Your task to perform on an android device: Open network settings Image 0: 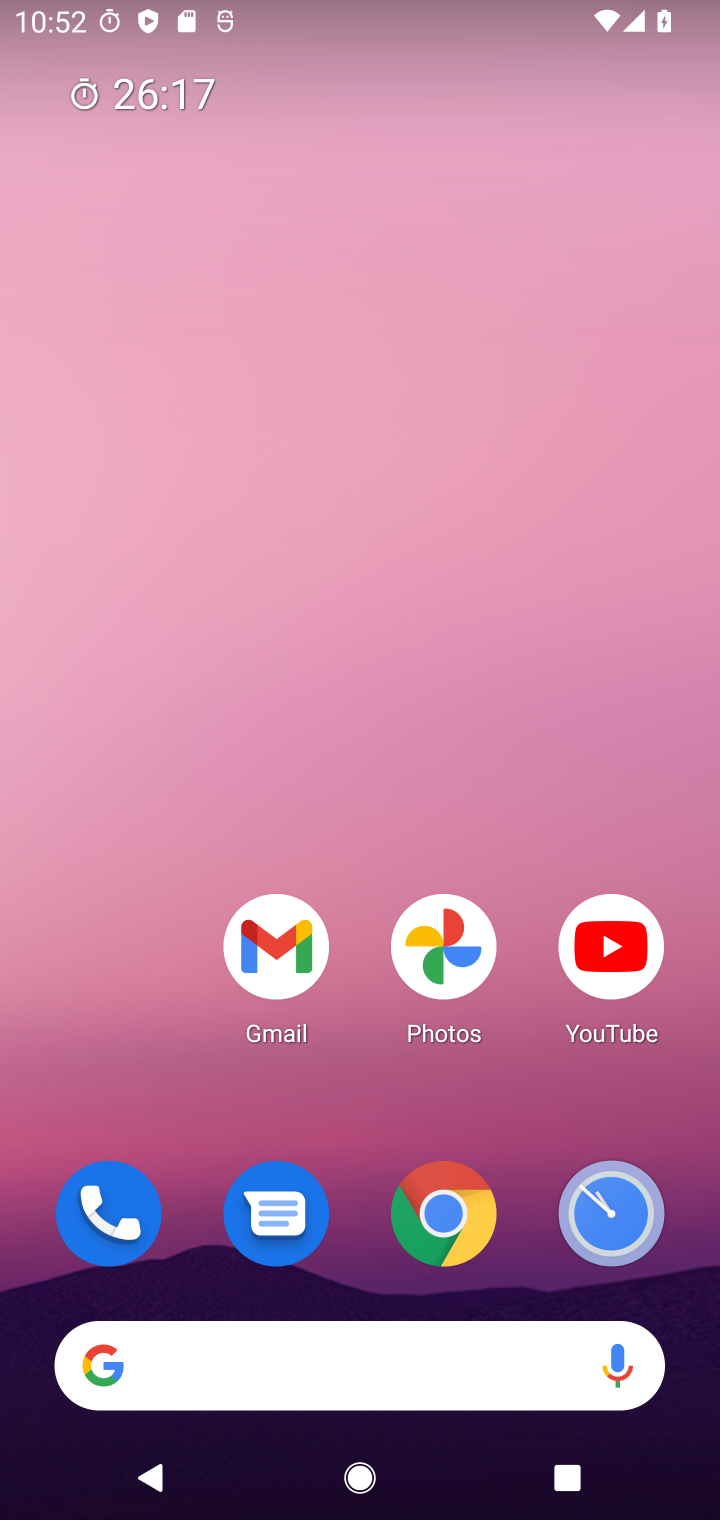
Step 0: drag from (381, 1129) to (487, 302)
Your task to perform on an android device: Open network settings Image 1: 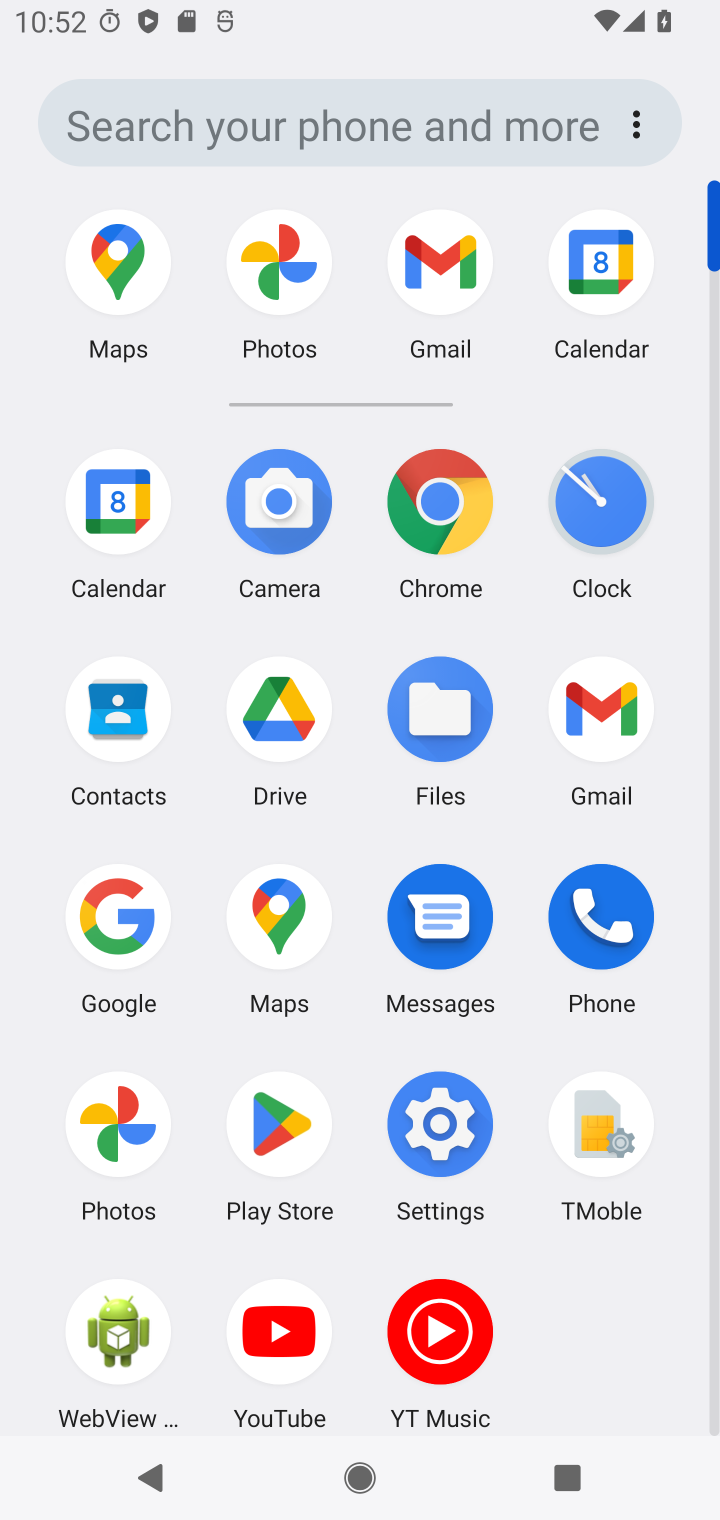
Step 1: click (433, 1151)
Your task to perform on an android device: Open network settings Image 2: 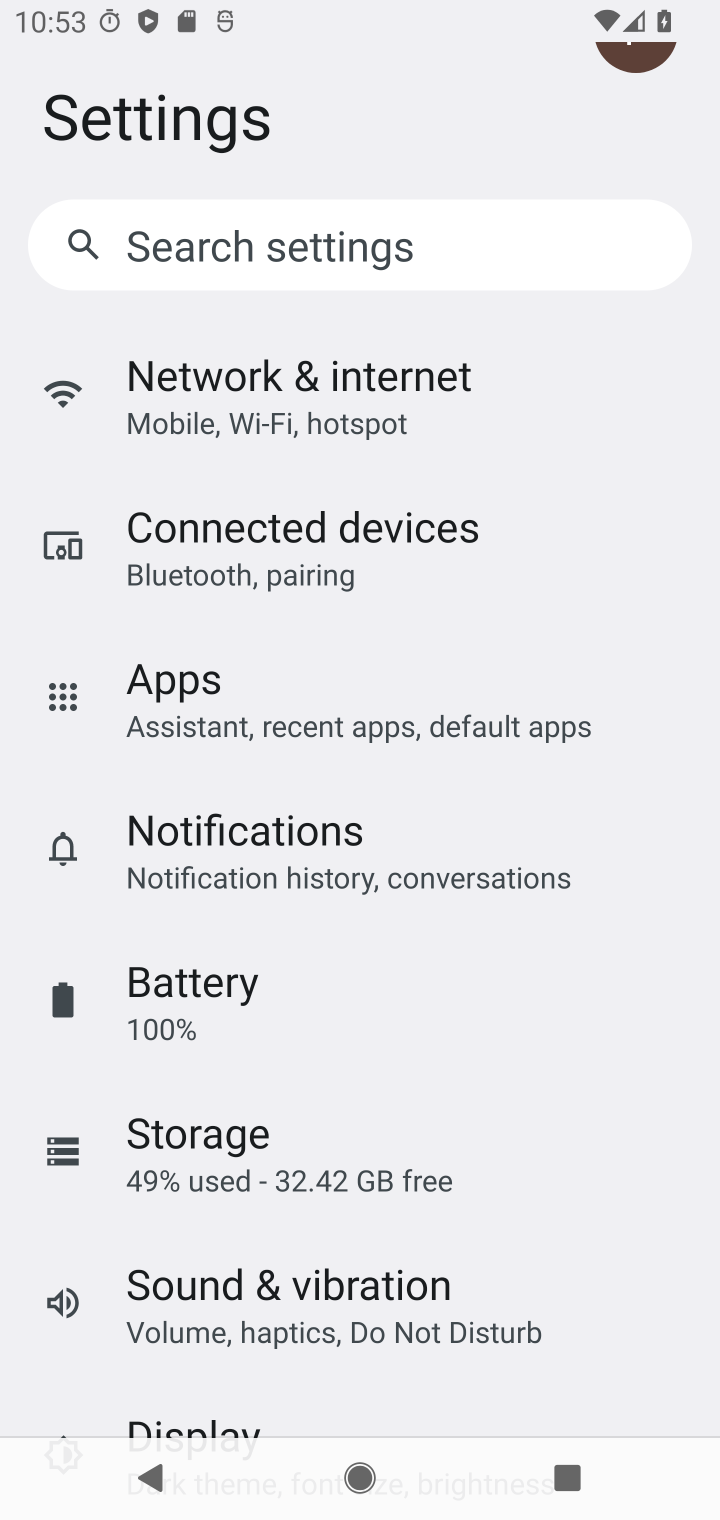
Step 2: click (385, 430)
Your task to perform on an android device: Open network settings Image 3: 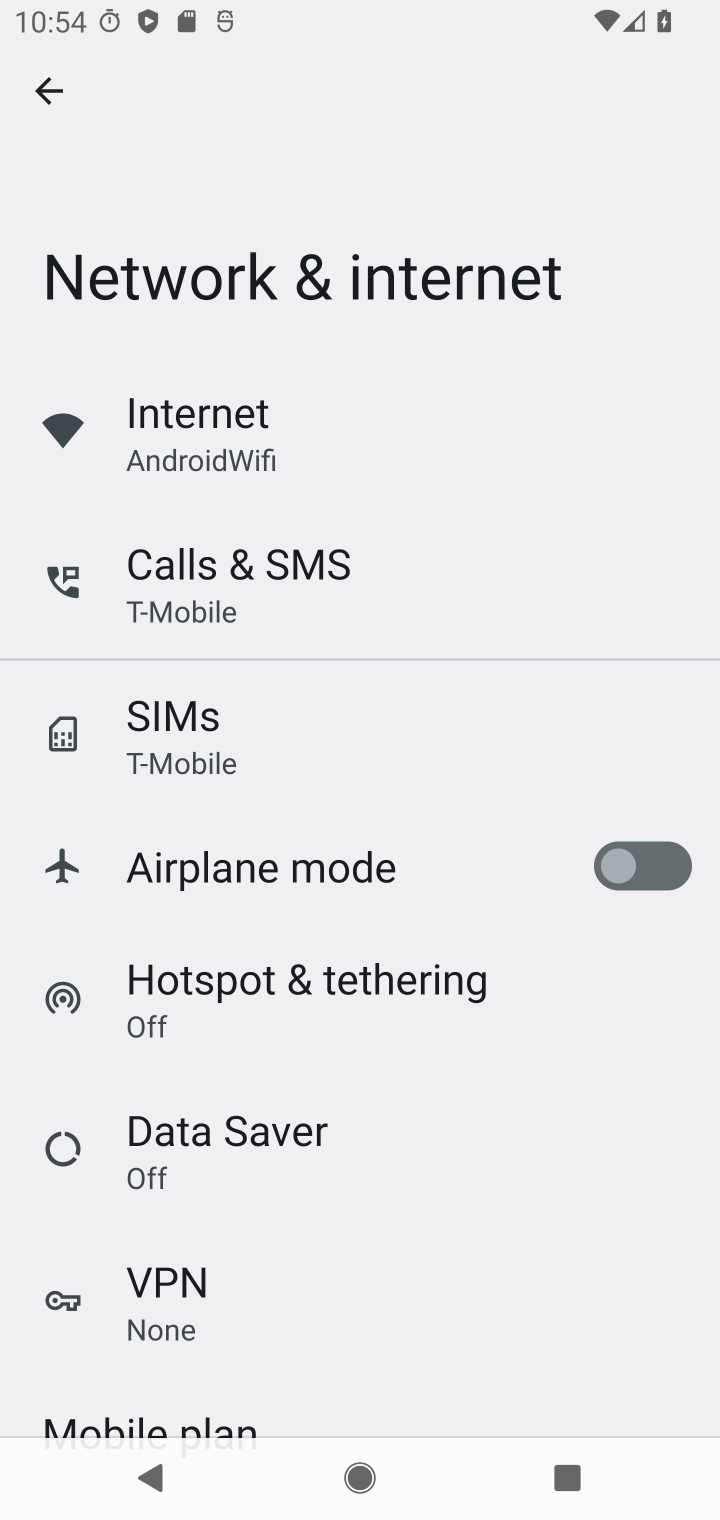
Step 3: task complete